Your task to perform on an android device: turn off sleep mode Image 0: 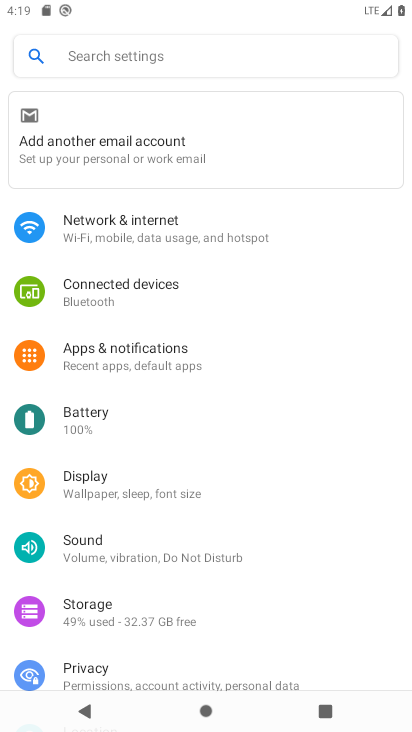
Step 0: press home button
Your task to perform on an android device: turn off sleep mode Image 1: 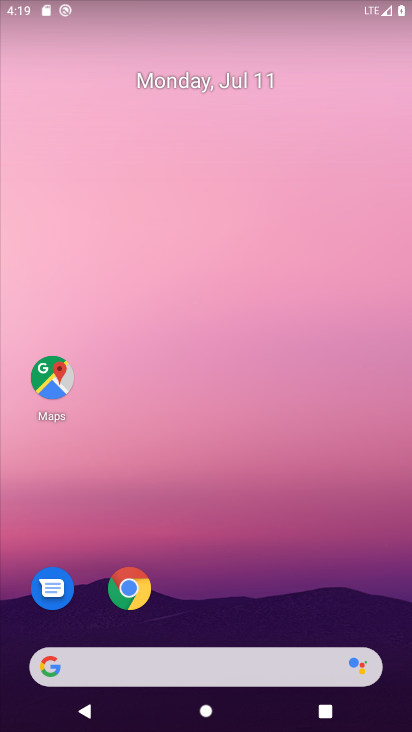
Step 1: drag from (375, 577) to (390, 132)
Your task to perform on an android device: turn off sleep mode Image 2: 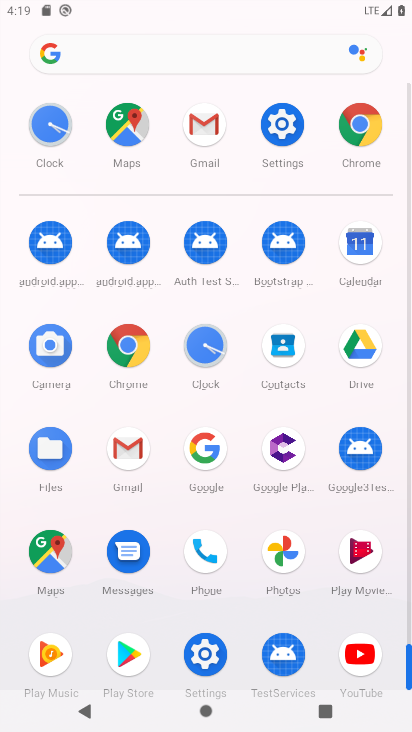
Step 2: click (287, 136)
Your task to perform on an android device: turn off sleep mode Image 3: 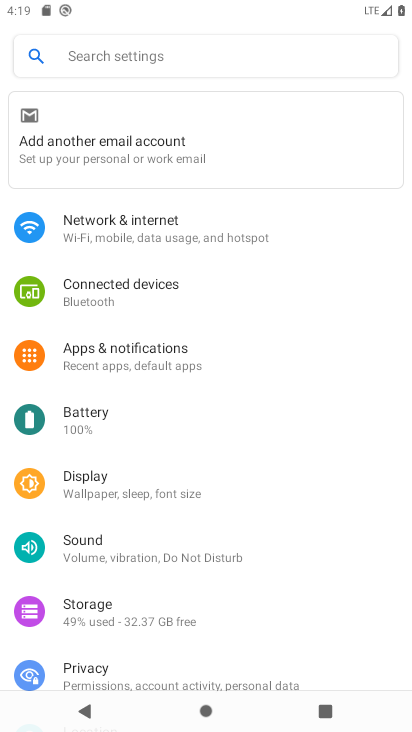
Step 3: drag from (316, 461) to (325, 372)
Your task to perform on an android device: turn off sleep mode Image 4: 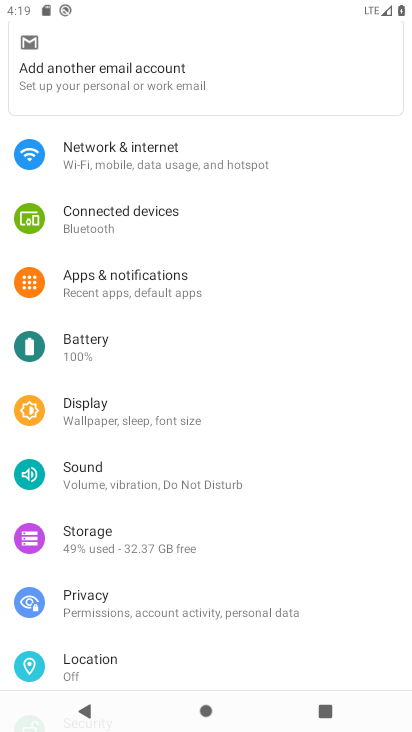
Step 4: drag from (344, 477) to (342, 402)
Your task to perform on an android device: turn off sleep mode Image 5: 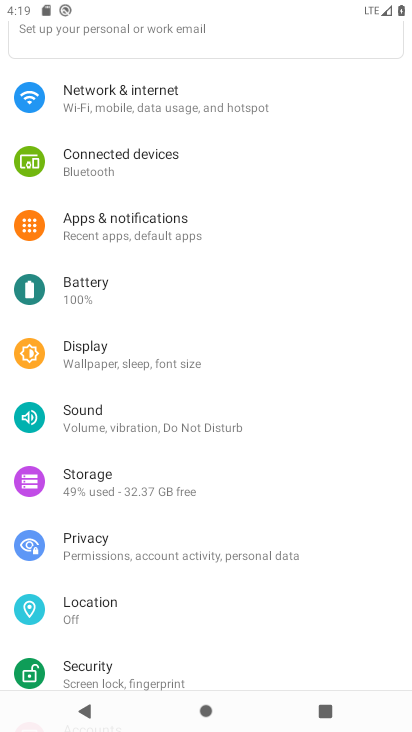
Step 5: drag from (347, 516) to (348, 437)
Your task to perform on an android device: turn off sleep mode Image 6: 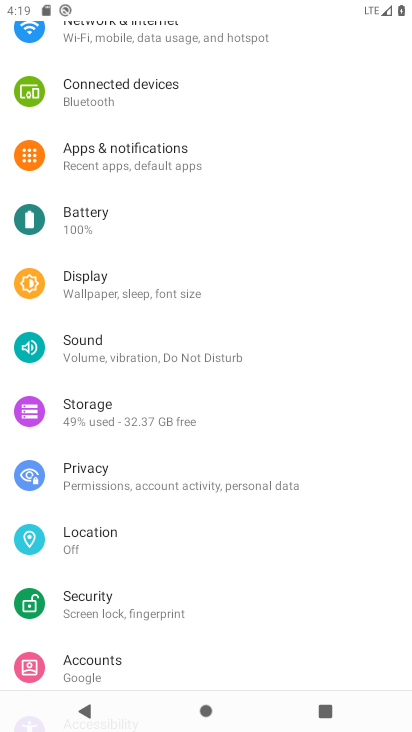
Step 6: drag from (357, 527) to (345, 418)
Your task to perform on an android device: turn off sleep mode Image 7: 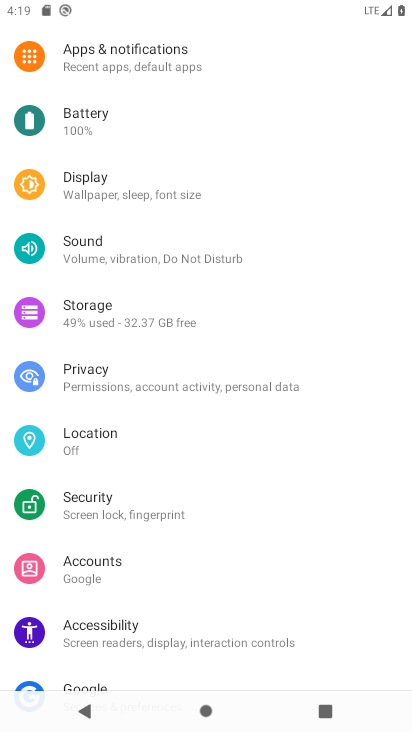
Step 7: drag from (323, 535) to (318, 403)
Your task to perform on an android device: turn off sleep mode Image 8: 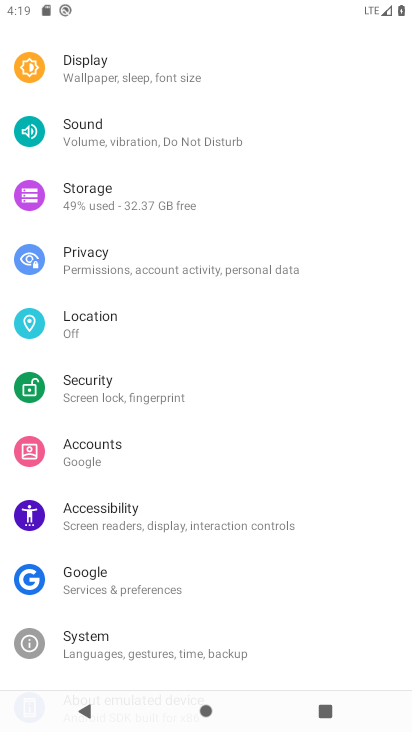
Step 8: drag from (330, 308) to (337, 413)
Your task to perform on an android device: turn off sleep mode Image 9: 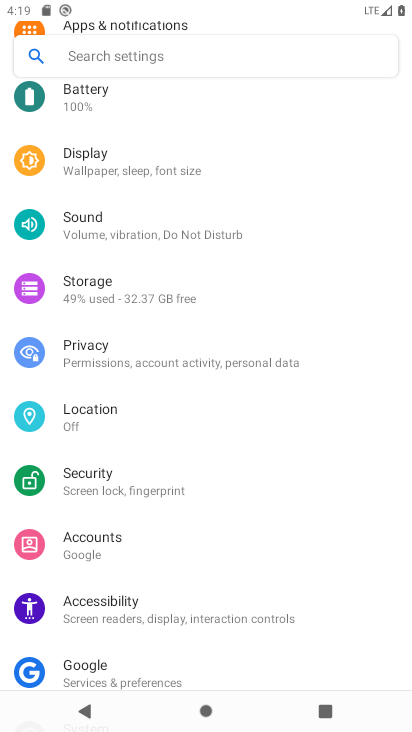
Step 9: drag from (323, 277) to (320, 403)
Your task to perform on an android device: turn off sleep mode Image 10: 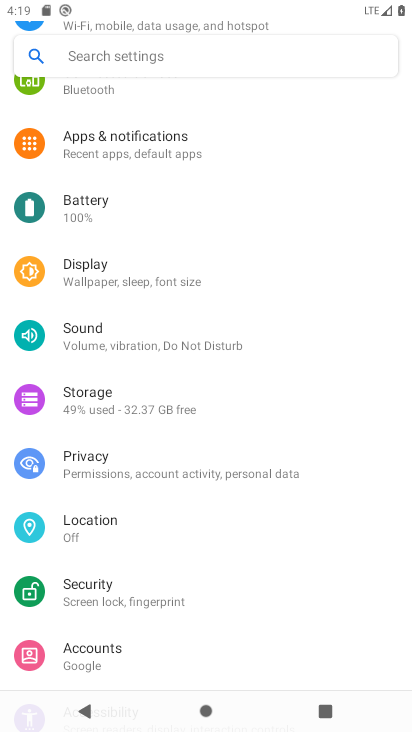
Step 10: drag from (314, 235) to (314, 377)
Your task to perform on an android device: turn off sleep mode Image 11: 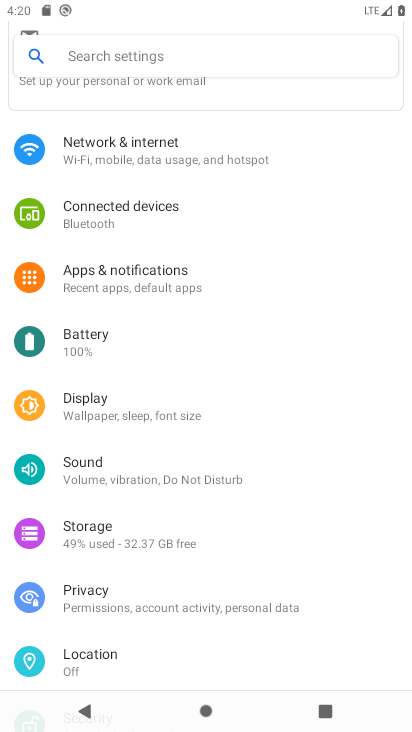
Step 11: click (247, 415)
Your task to perform on an android device: turn off sleep mode Image 12: 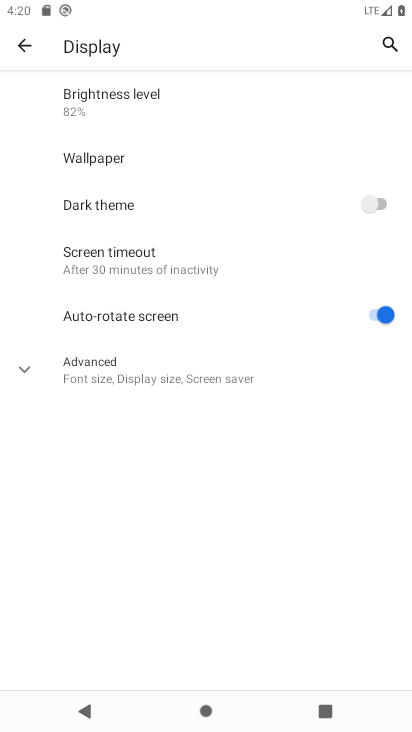
Step 12: click (253, 390)
Your task to perform on an android device: turn off sleep mode Image 13: 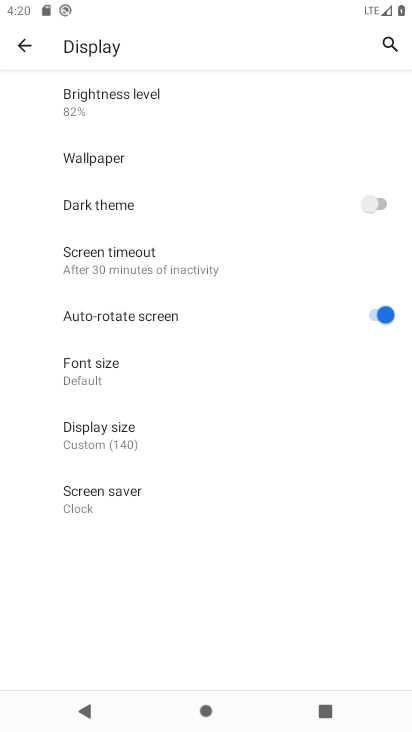
Step 13: task complete